Your task to perform on an android device: add a label to a message in the gmail app Image 0: 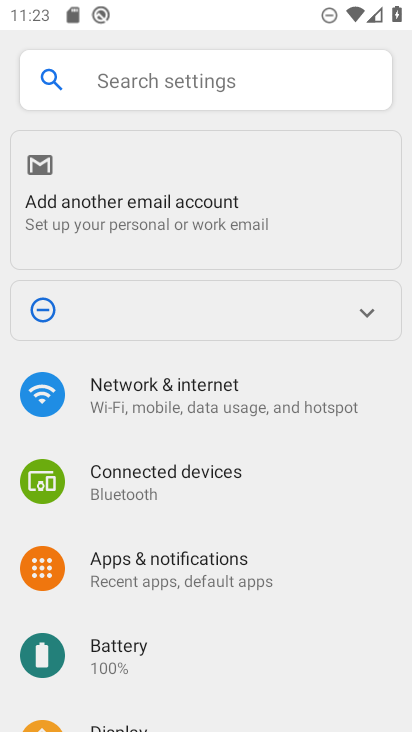
Step 0: press home button
Your task to perform on an android device: add a label to a message in the gmail app Image 1: 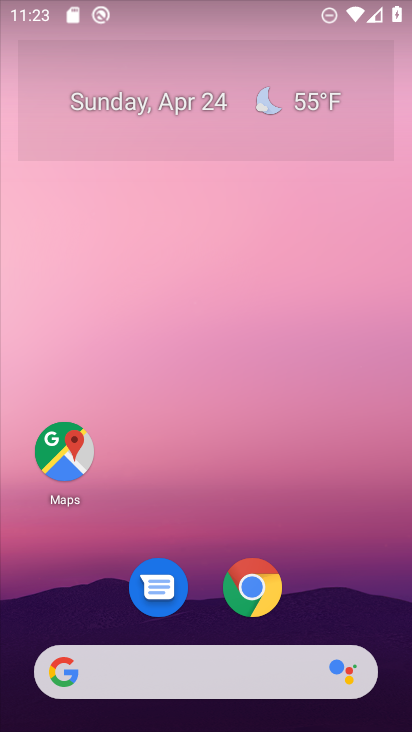
Step 1: drag from (342, 569) to (340, 143)
Your task to perform on an android device: add a label to a message in the gmail app Image 2: 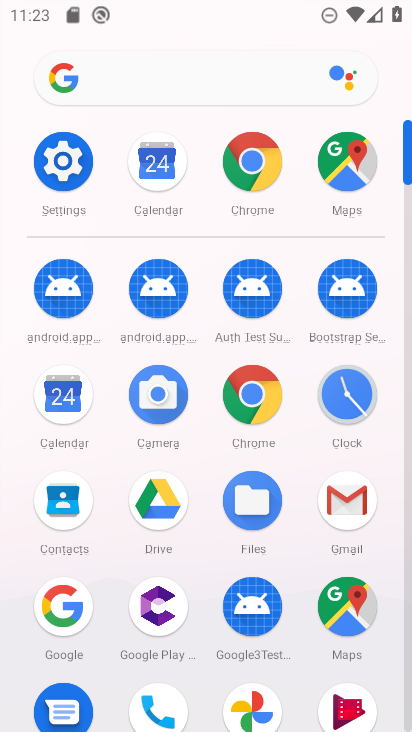
Step 2: click (362, 510)
Your task to perform on an android device: add a label to a message in the gmail app Image 3: 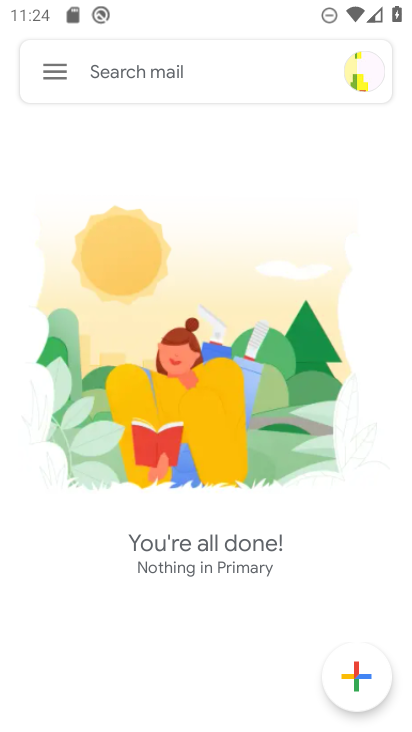
Step 3: click (59, 72)
Your task to perform on an android device: add a label to a message in the gmail app Image 4: 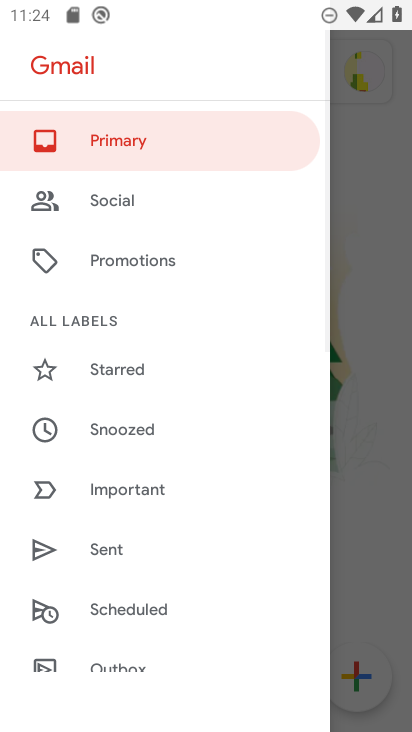
Step 4: drag from (181, 485) to (260, 134)
Your task to perform on an android device: add a label to a message in the gmail app Image 5: 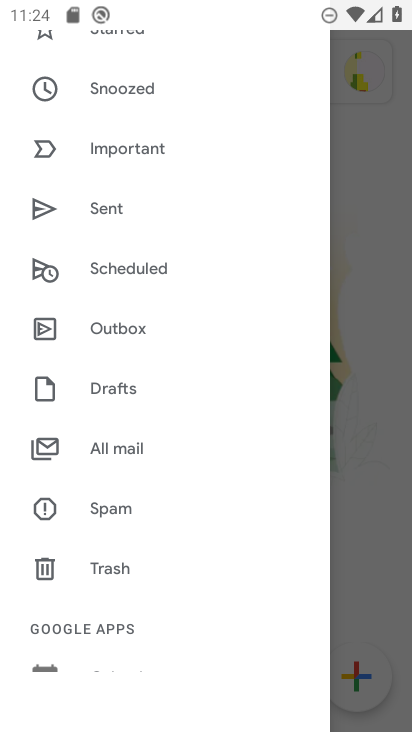
Step 5: click (100, 441)
Your task to perform on an android device: add a label to a message in the gmail app Image 6: 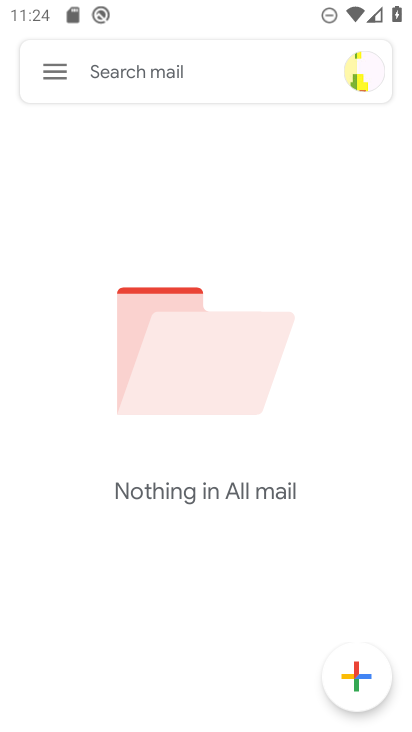
Step 6: task complete